Your task to perform on an android device: check android version Image 0: 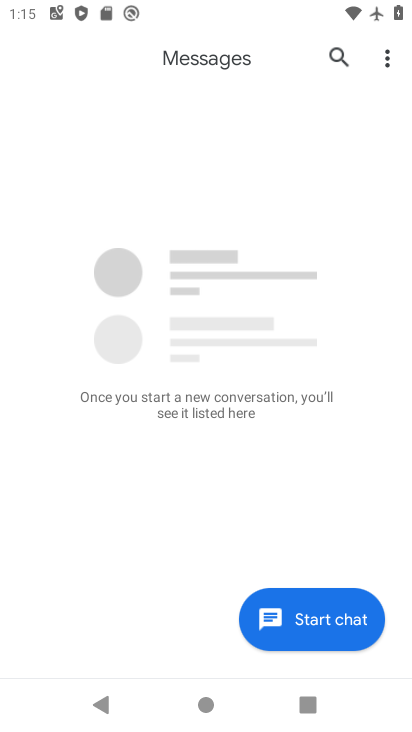
Step 0: press home button
Your task to perform on an android device: check android version Image 1: 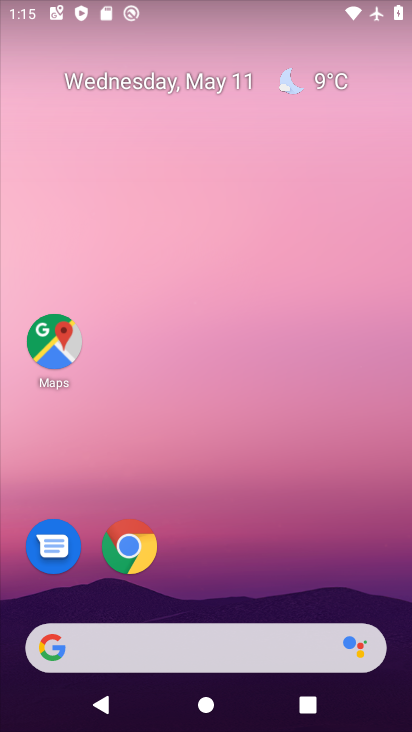
Step 1: drag from (315, 643) to (308, 20)
Your task to perform on an android device: check android version Image 2: 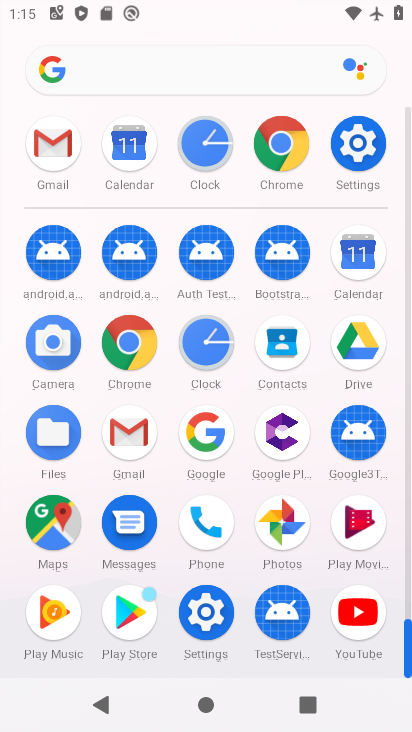
Step 2: click (203, 620)
Your task to perform on an android device: check android version Image 3: 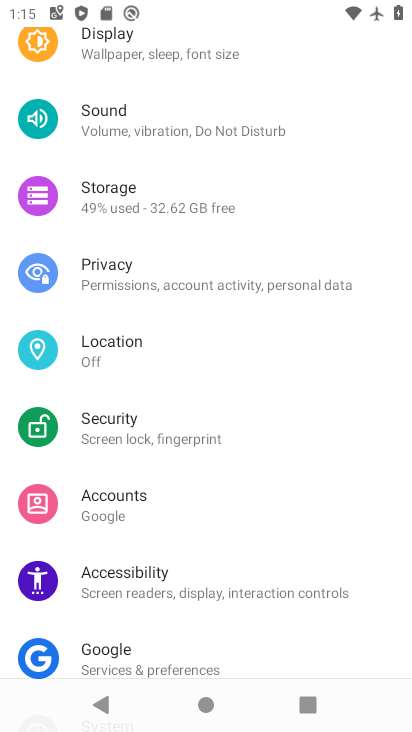
Step 3: drag from (213, 665) to (254, 229)
Your task to perform on an android device: check android version Image 4: 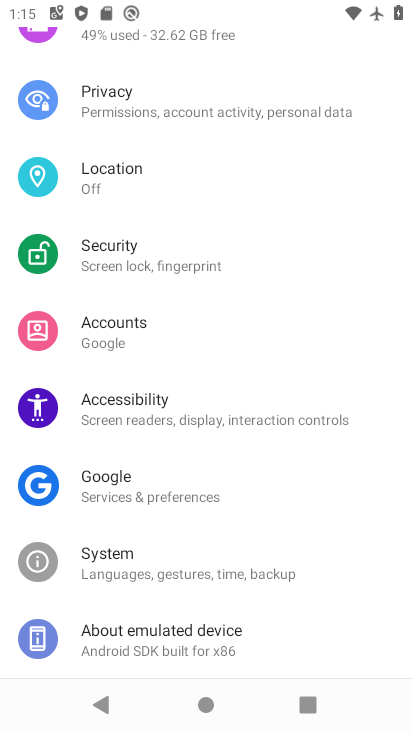
Step 4: click (186, 663)
Your task to perform on an android device: check android version Image 5: 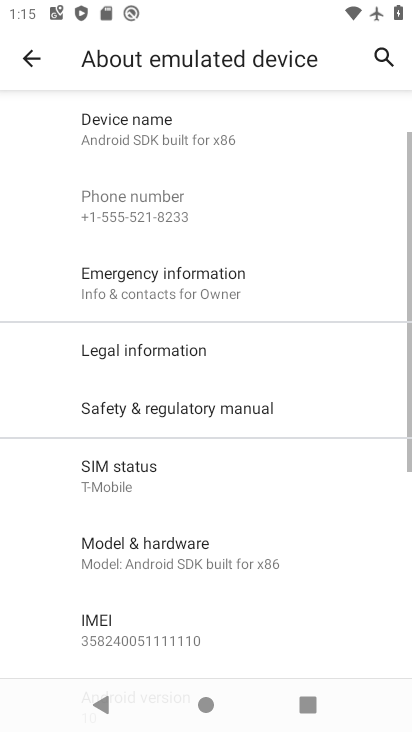
Step 5: drag from (189, 608) to (200, 231)
Your task to perform on an android device: check android version Image 6: 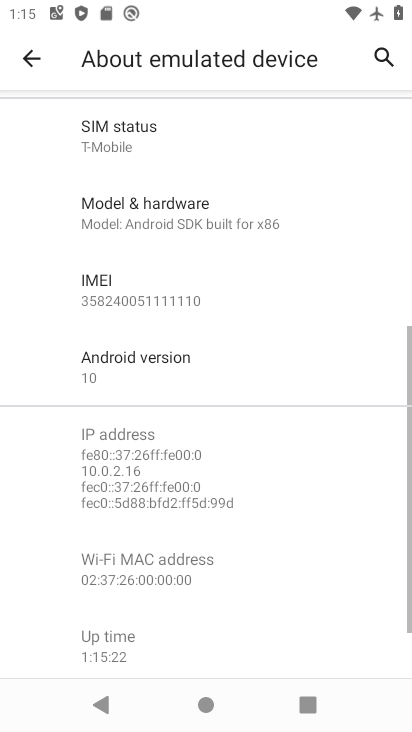
Step 6: click (168, 377)
Your task to perform on an android device: check android version Image 7: 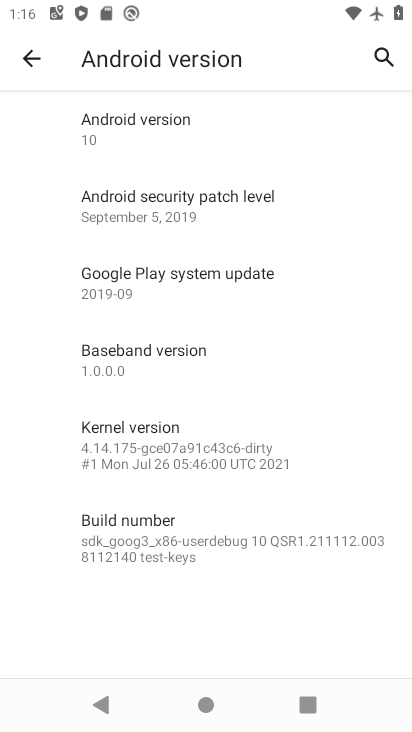
Step 7: task complete